Your task to perform on an android device: open chrome privacy settings Image 0: 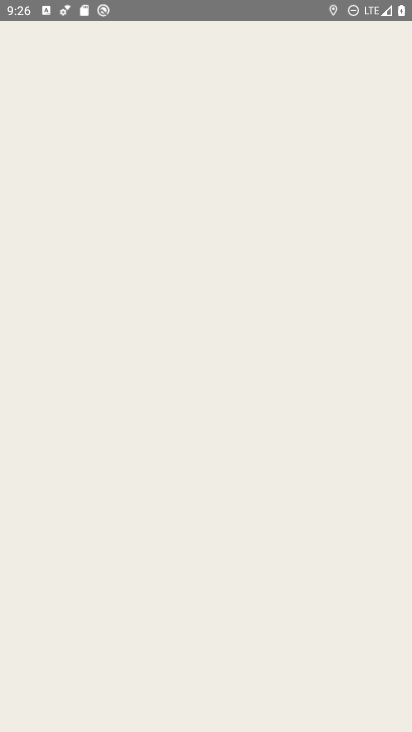
Step 0: press home button
Your task to perform on an android device: open chrome privacy settings Image 1: 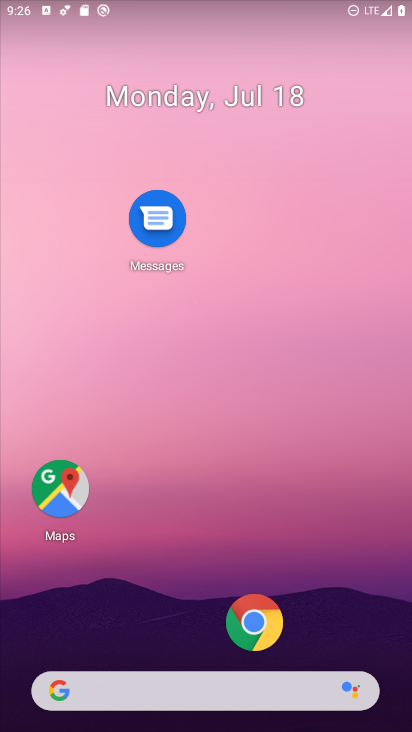
Step 1: drag from (136, 676) to (145, 264)
Your task to perform on an android device: open chrome privacy settings Image 2: 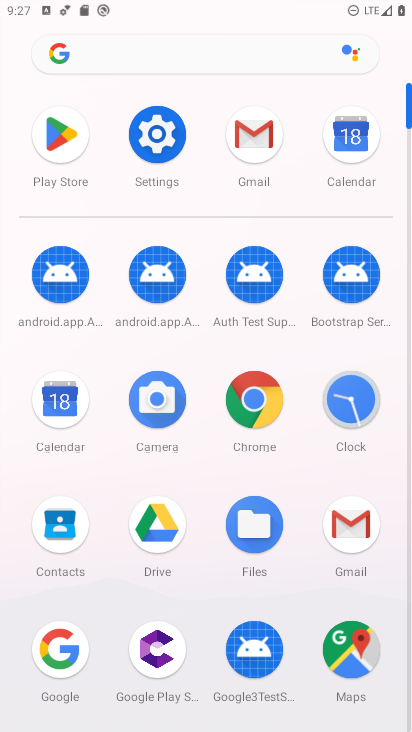
Step 2: click (263, 428)
Your task to perform on an android device: open chrome privacy settings Image 3: 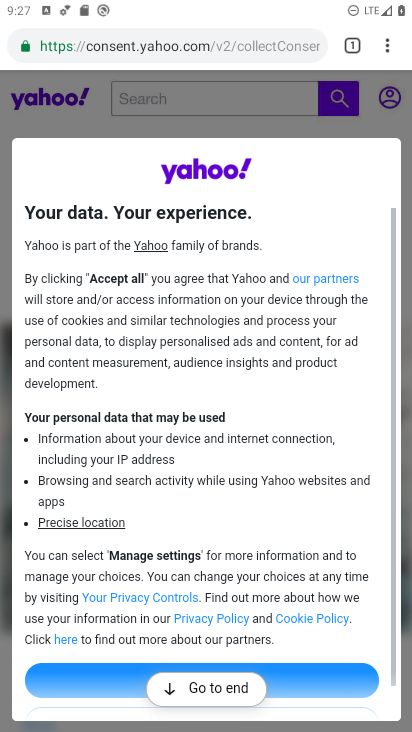
Step 3: click (390, 49)
Your task to perform on an android device: open chrome privacy settings Image 4: 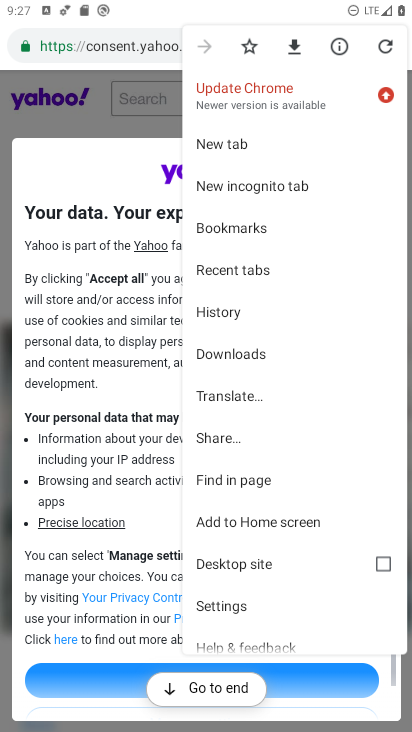
Step 4: drag from (280, 412) to (319, 223)
Your task to perform on an android device: open chrome privacy settings Image 5: 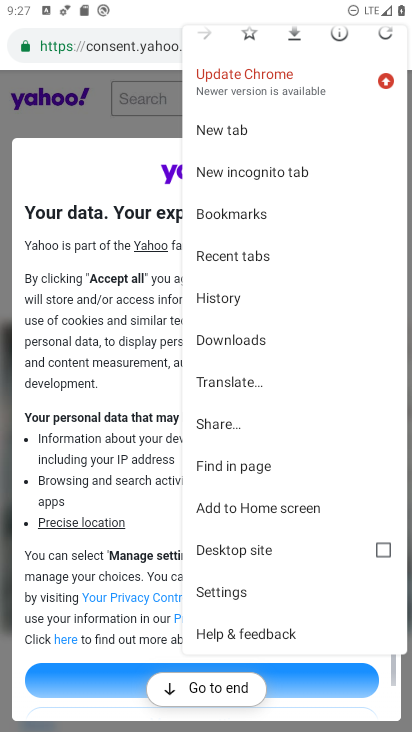
Step 5: click (235, 591)
Your task to perform on an android device: open chrome privacy settings Image 6: 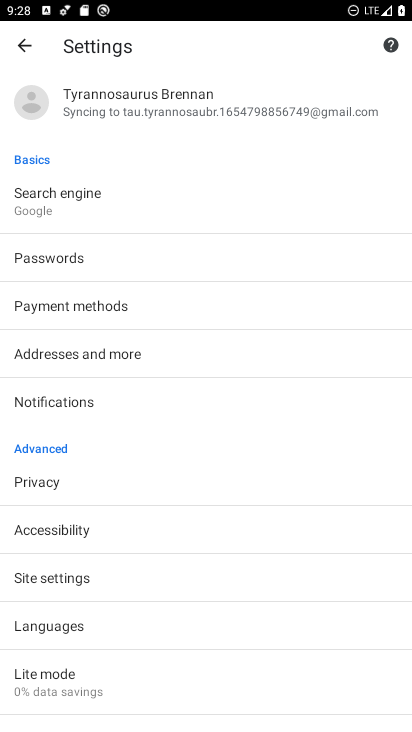
Step 6: click (46, 488)
Your task to perform on an android device: open chrome privacy settings Image 7: 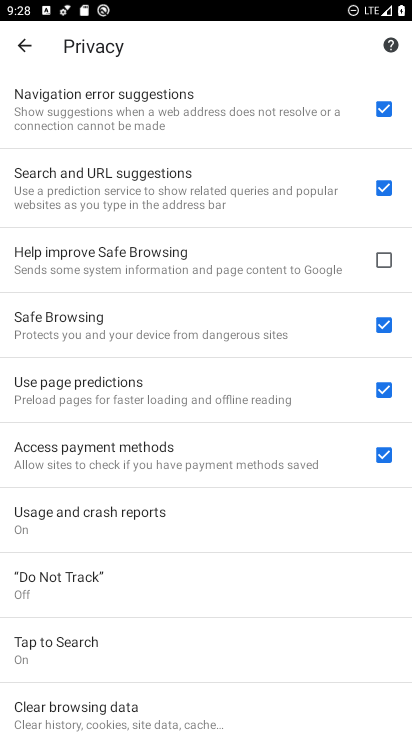
Step 7: task complete